Your task to perform on an android device: change notification settings in the gmail app Image 0: 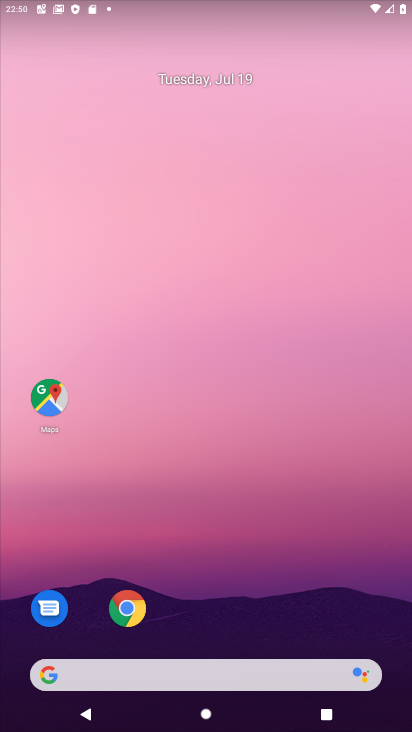
Step 0: drag from (338, 572) to (344, 3)
Your task to perform on an android device: change notification settings in the gmail app Image 1: 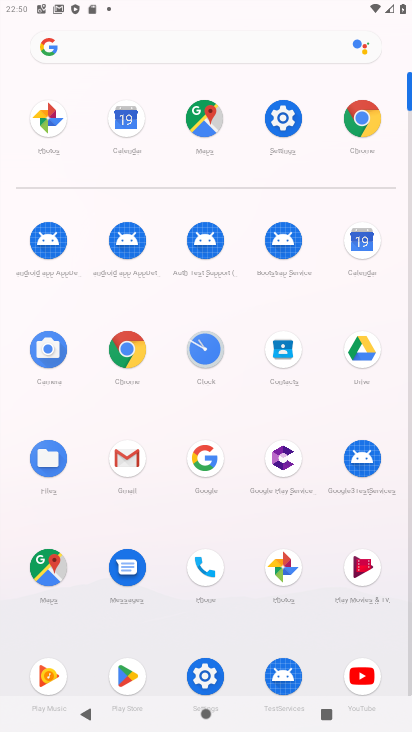
Step 1: click (119, 470)
Your task to perform on an android device: change notification settings in the gmail app Image 2: 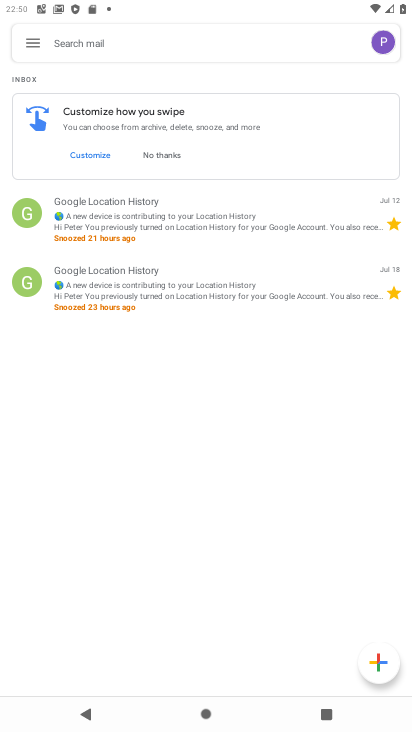
Step 2: click (23, 38)
Your task to perform on an android device: change notification settings in the gmail app Image 3: 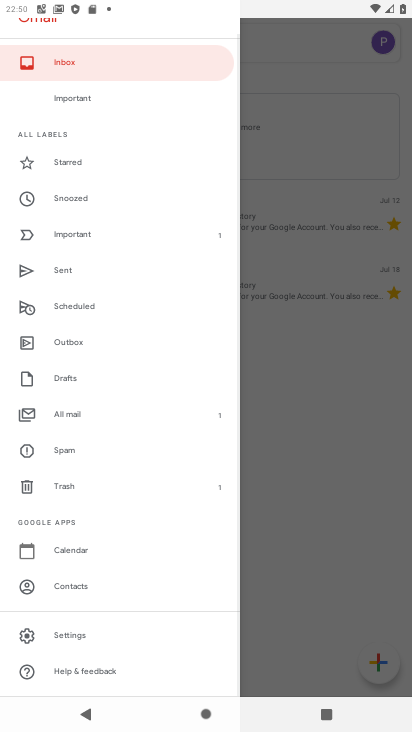
Step 3: click (69, 638)
Your task to perform on an android device: change notification settings in the gmail app Image 4: 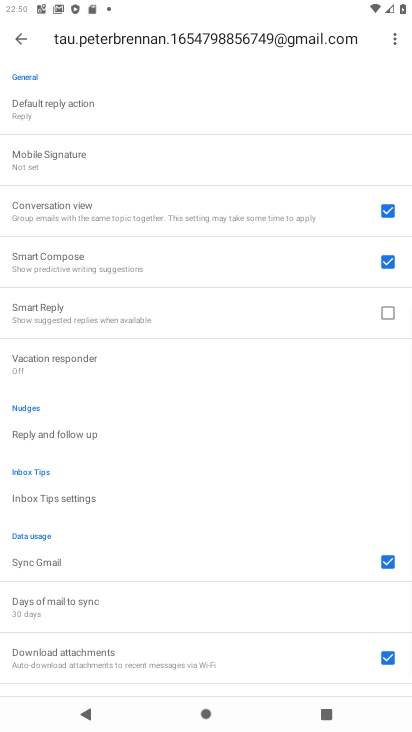
Step 4: drag from (171, 112) to (240, 650)
Your task to perform on an android device: change notification settings in the gmail app Image 5: 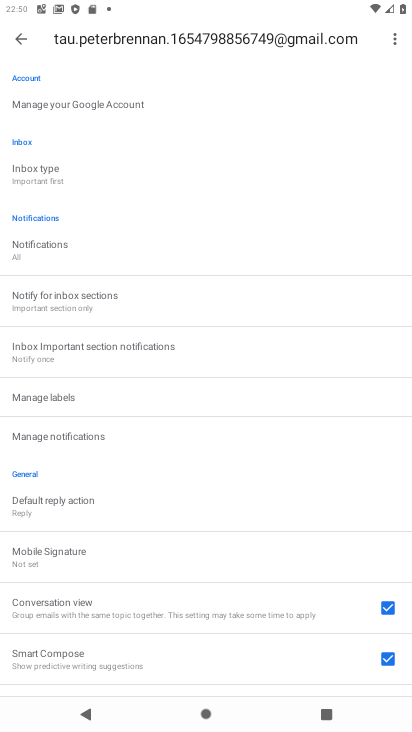
Step 5: click (74, 437)
Your task to perform on an android device: change notification settings in the gmail app Image 6: 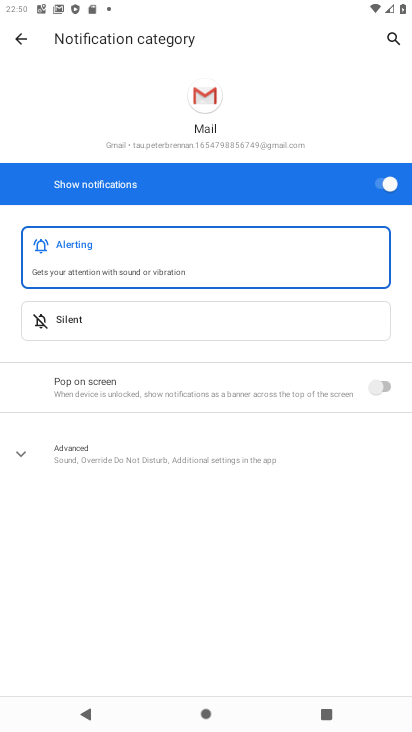
Step 6: click (386, 172)
Your task to perform on an android device: change notification settings in the gmail app Image 7: 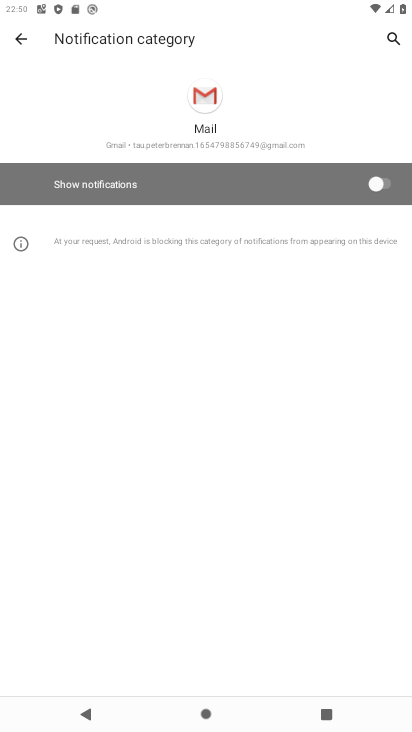
Step 7: task complete